Your task to perform on an android device: Go to CNN.com Image 0: 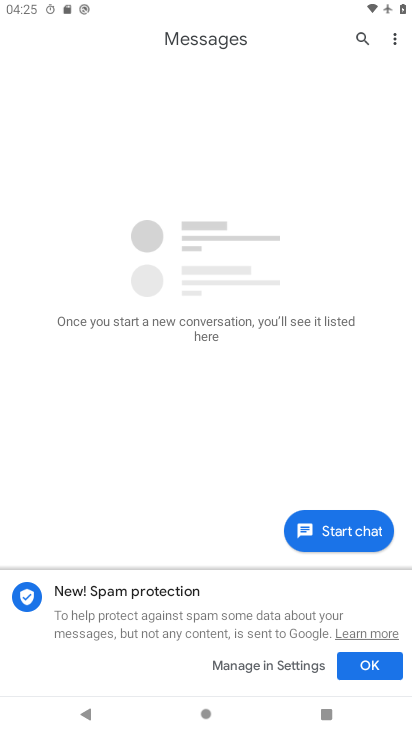
Step 0: press home button
Your task to perform on an android device: Go to CNN.com Image 1: 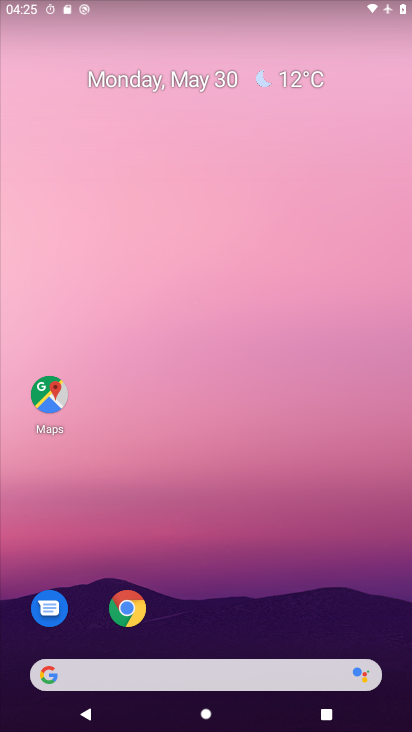
Step 1: click (131, 604)
Your task to perform on an android device: Go to CNN.com Image 2: 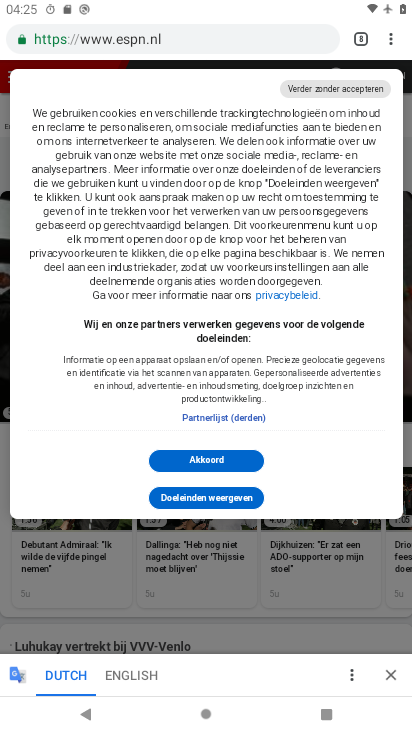
Step 2: click (362, 29)
Your task to perform on an android device: Go to CNN.com Image 3: 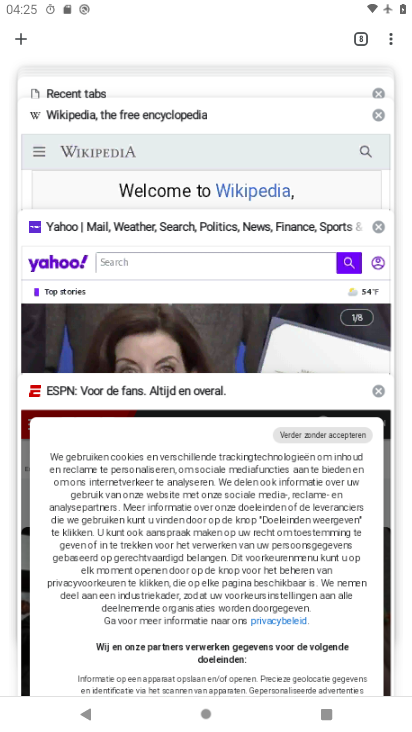
Step 3: click (19, 39)
Your task to perform on an android device: Go to CNN.com Image 4: 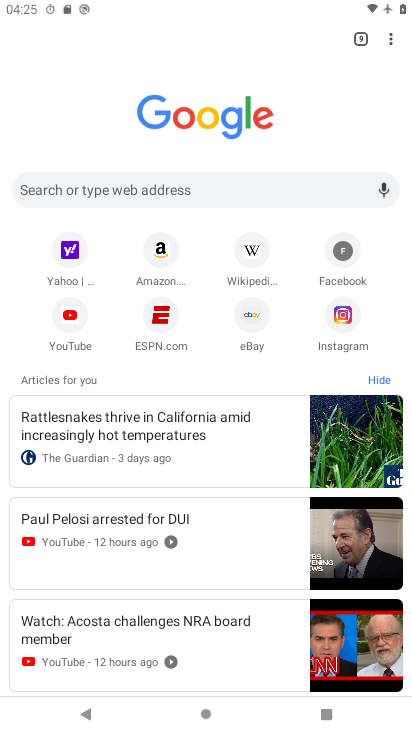
Step 4: click (185, 177)
Your task to perform on an android device: Go to CNN.com Image 5: 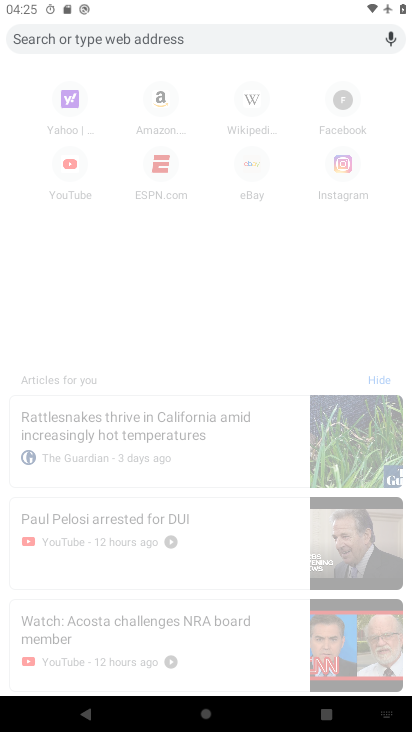
Step 5: type "CNN.com"
Your task to perform on an android device: Go to CNN.com Image 6: 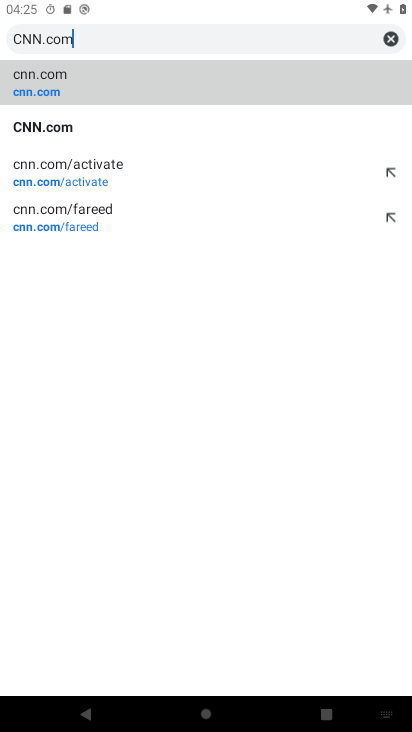
Step 6: type ""
Your task to perform on an android device: Go to CNN.com Image 7: 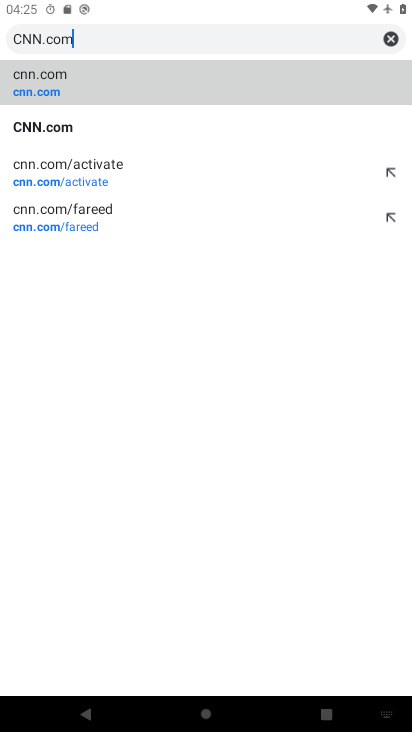
Step 7: click (154, 87)
Your task to perform on an android device: Go to CNN.com Image 8: 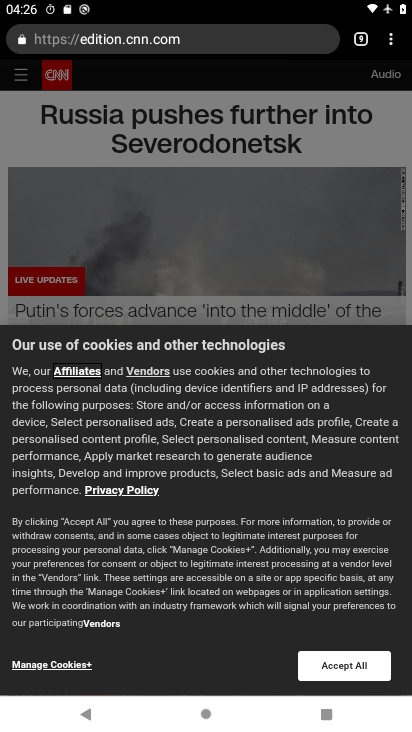
Step 8: task complete